Your task to perform on an android device: Open maps Image 0: 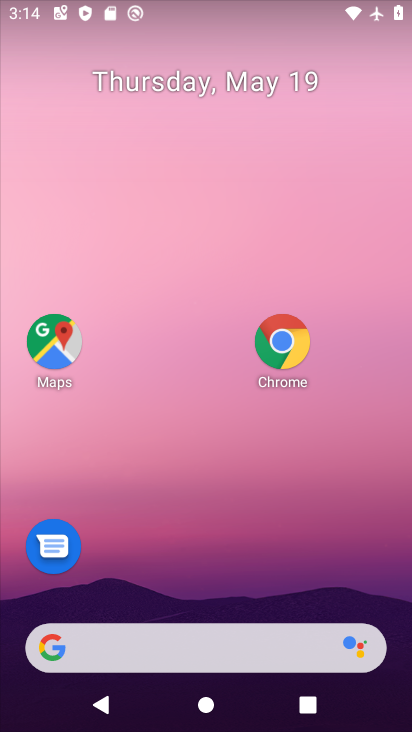
Step 0: press home button
Your task to perform on an android device: Open maps Image 1: 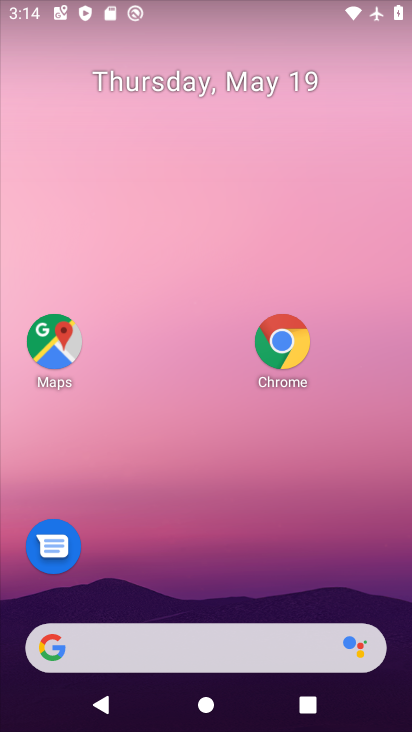
Step 1: click (51, 345)
Your task to perform on an android device: Open maps Image 2: 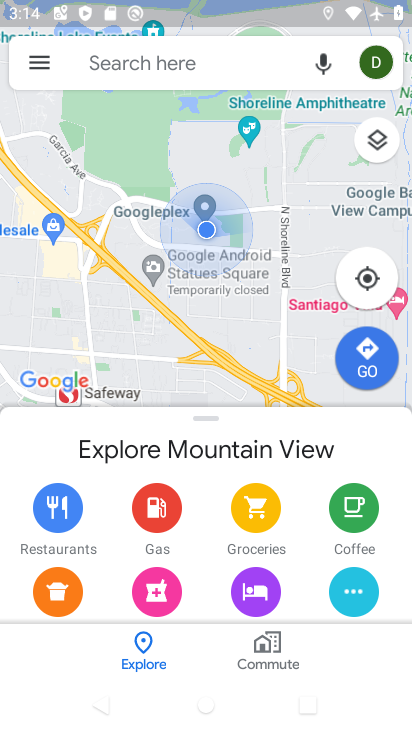
Step 2: task complete